Your task to perform on an android device: change notification settings in the gmail app Image 0: 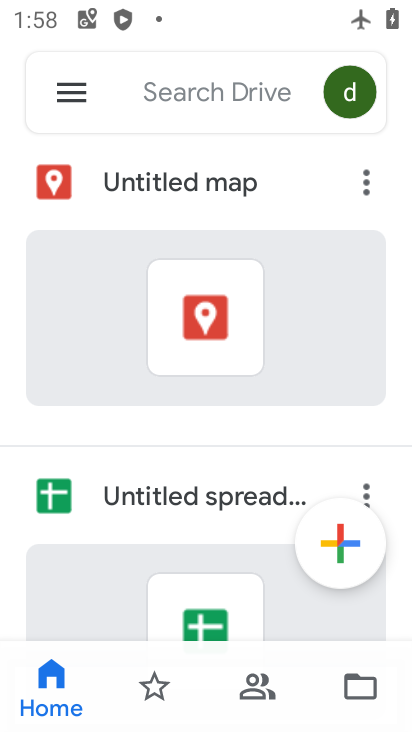
Step 0: press home button
Your task to perform on an android device: change notification settings in the gmail app Image 1: 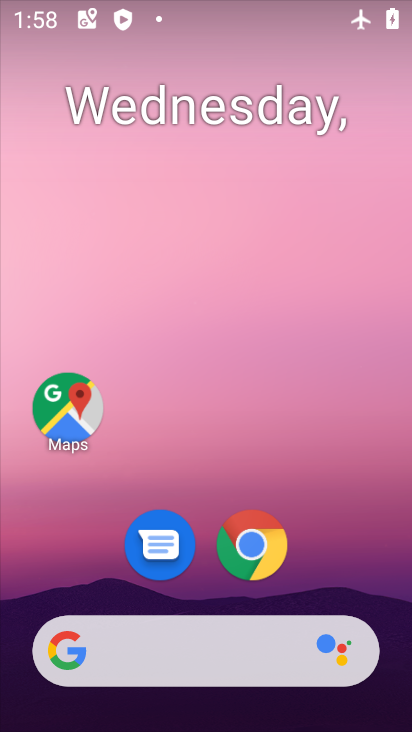
Step 1: drag from (321, 569) to (325, 145)
Your task to perform on an android device: change notification settings in the gmail app Image 2: 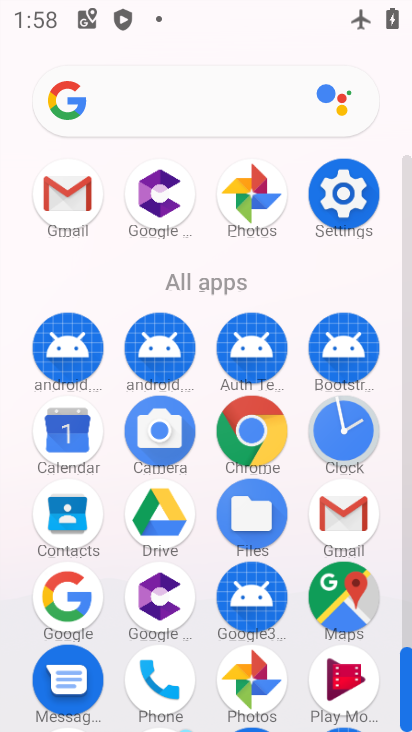
Step 2: click (75, 192)
Your task to perform on an android device: change notification settings in the gmail app Image 3: 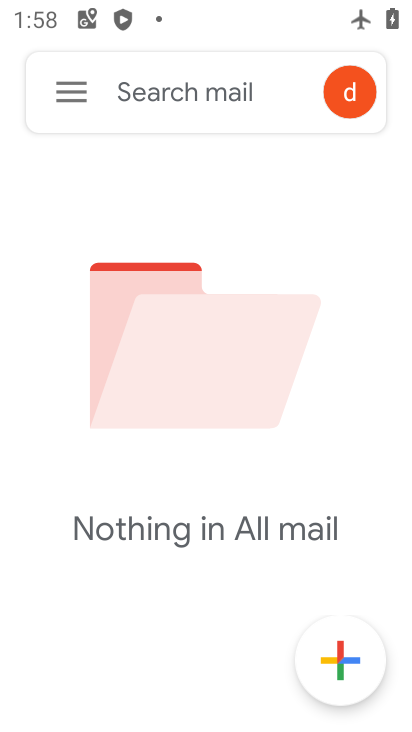
Step 3: click (60, 81)
Your task to perform on an android device: change notification settings in the gmail app Image 4: 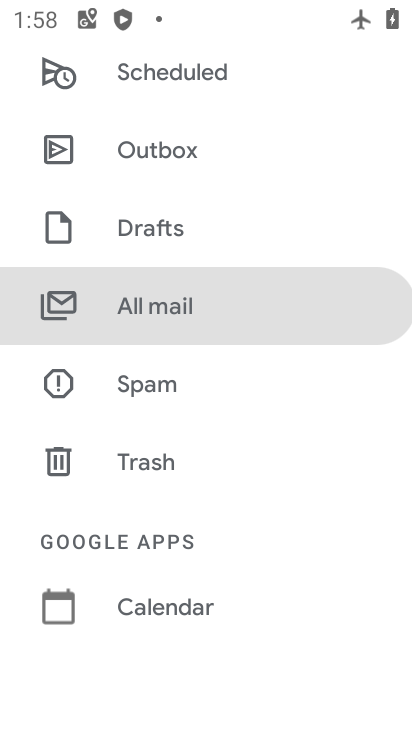
Step 4: drag from (163, 597) to (244, 0)
Your task to perform on an android device: change notification settings in the gmail app Image 5: 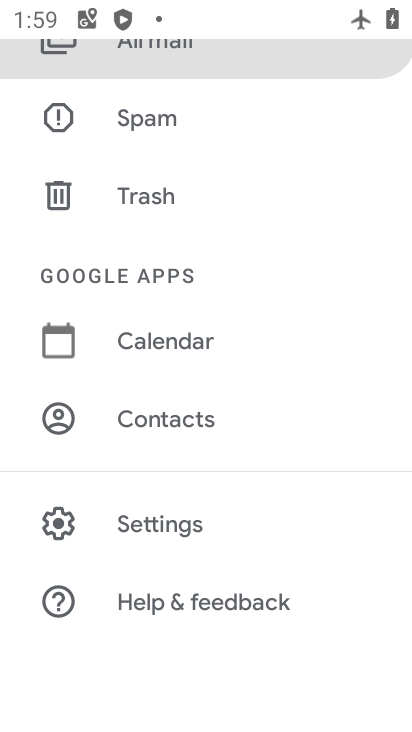
Step 5: click (145, 528)
Your task to perform on an android device: change notification settings in the gmail app Image 6: 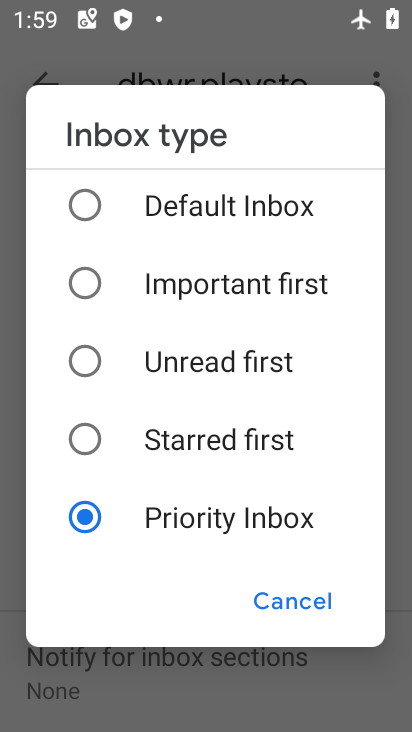
Step 6: click (309, 605)
Your task to perform on an android device: change notification settings in the gmail app Image 7: 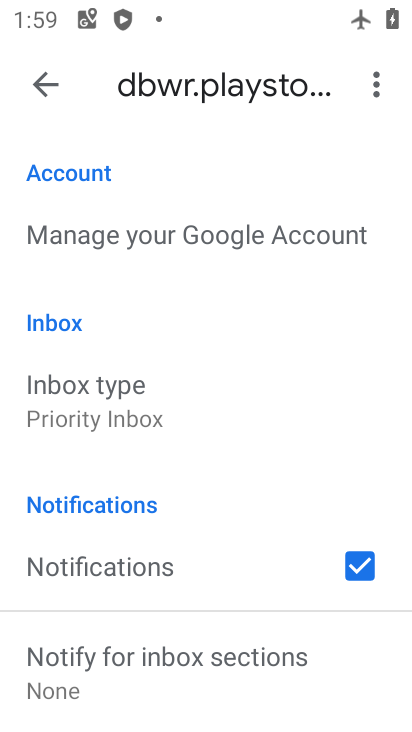
Step 7: drag from (197, 583) to (168, 117)
Your task to perform on an android device: change notification settings in the gmail app Image 8: 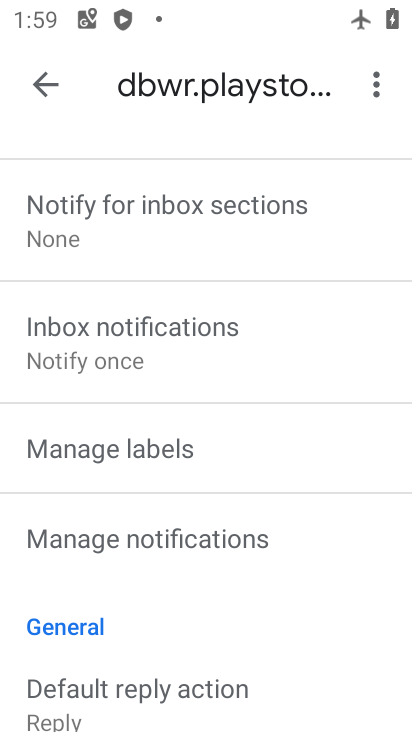
Step 8: click (150, 534)
Your task to perform on an android device: change notification settings in the gmail app Image 9: 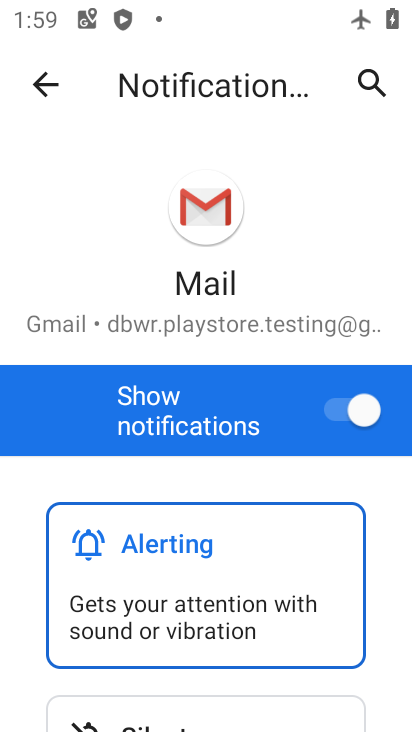
Step 9: drag from (236, 603) to (233, 141)
Your task to perform on an android device: change notification settings in the gmail app Image 10: 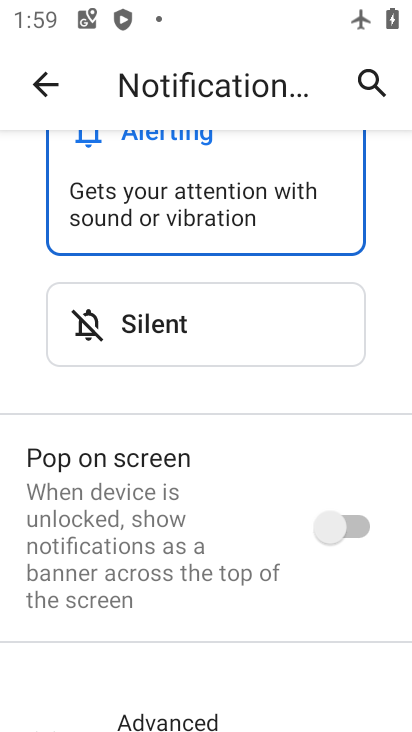
Step 10: drag from (248, 289) to (224, 730)
Your task to perform on an android device: change notification settings in the gmail app Image 11: 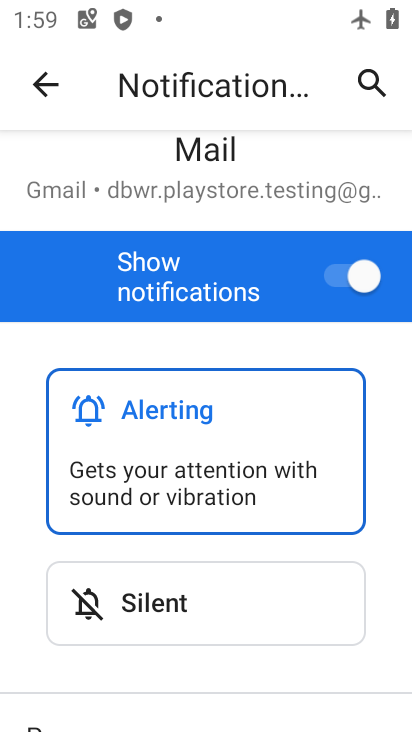
Step 11: click (354, 280)
Your task to perform on an android device: change notification settings in the gmail app Image 12: 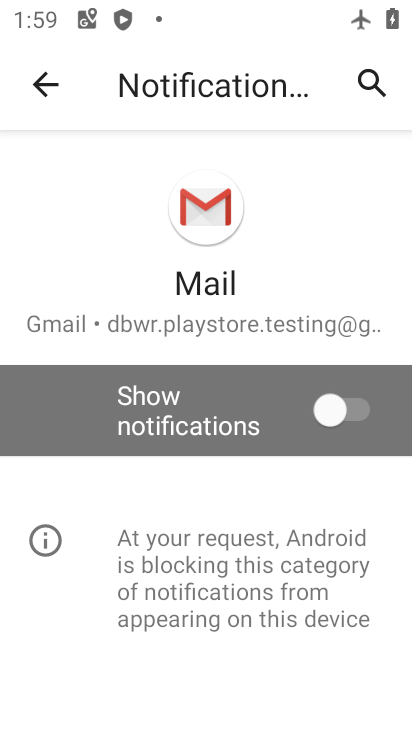
Step 12: task complete